Your task to perform on an android device: Go to Google maps Image 0: 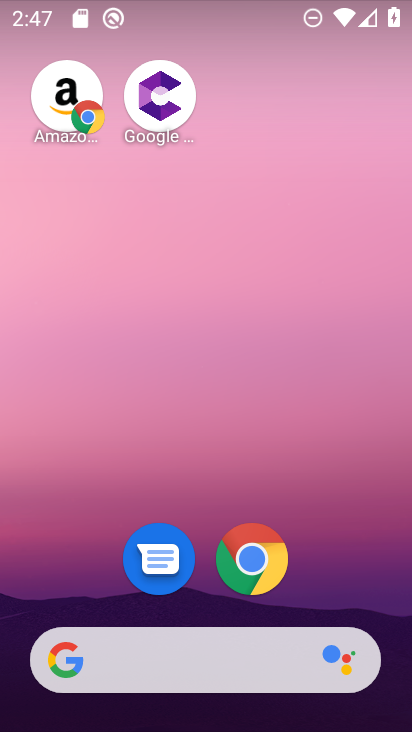
Step 0: drag from (324, 578) to (345, 156)
Your task to perform on an android device: Go to Google maps Image 1: 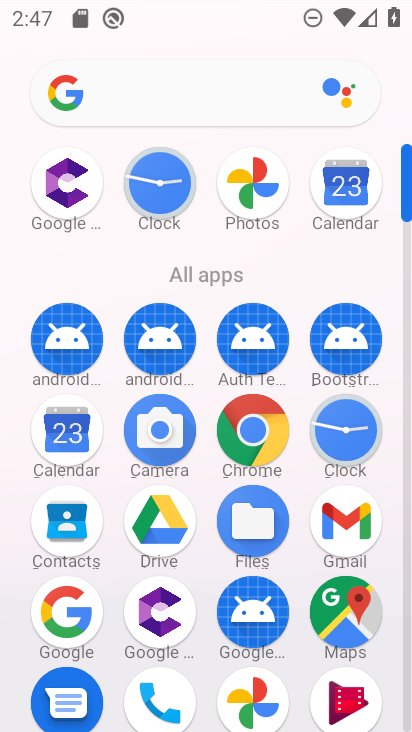
Step 1: click (360, 619)
Your task to perform on an android device: Go to Google maps Image 2: 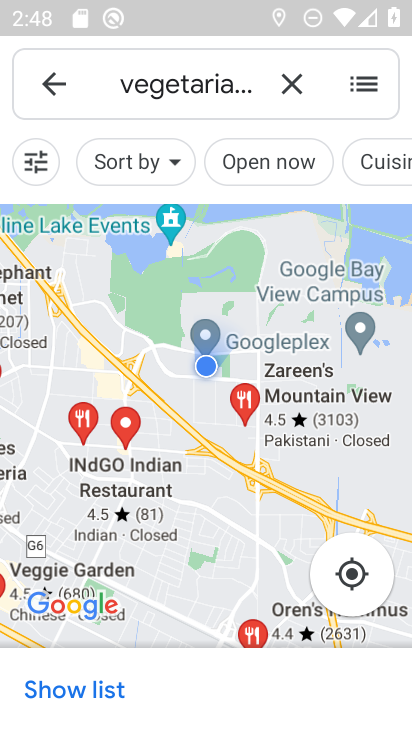
Step 2: task complete